Your task to perform on an android device: toggle sleep mode Image 0: 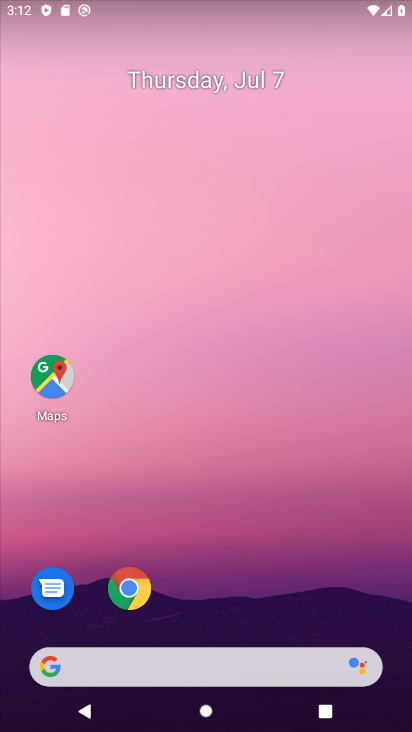
Step 0: drag from (260, 703) to (203, 124)
Your task to perform on an android device: toggle sleep mode Image 1: 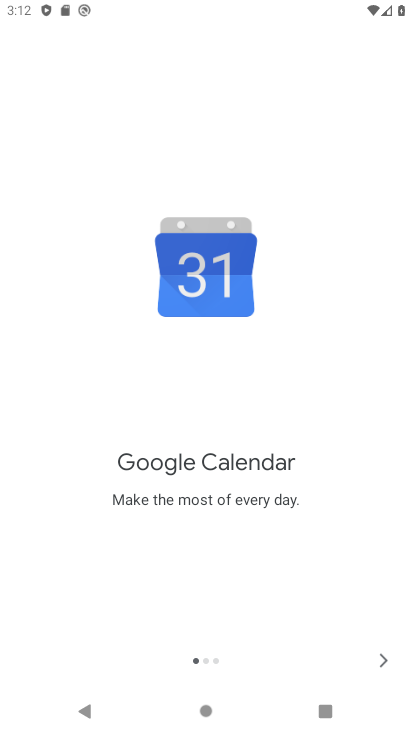
Step 1: press back button
Your task to perform on an android device: toggle sleep mode Image 2: 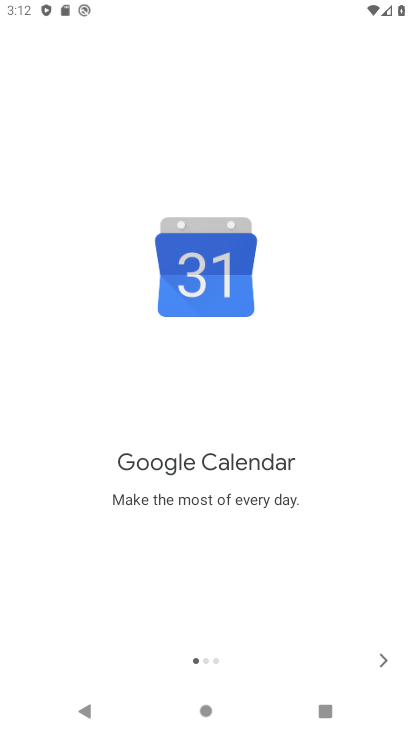
Step 2: press back button
Your task to perform on an android device: toggle sleep mode Image 3: 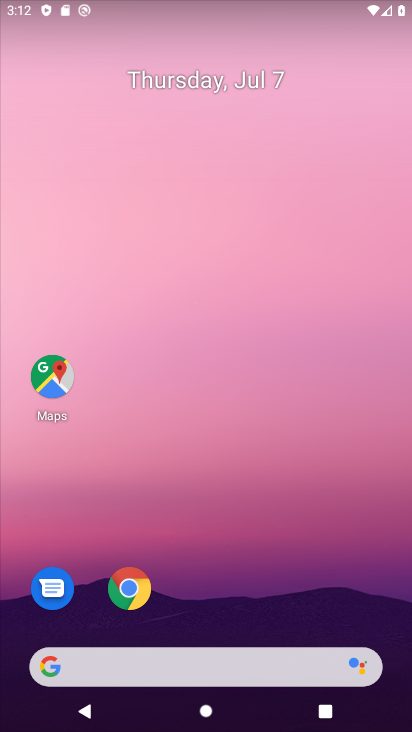
Step 3: drag from (269, 687) to (177, 16)
Your task to perform on an android device: toggle sleep mode Image 4: 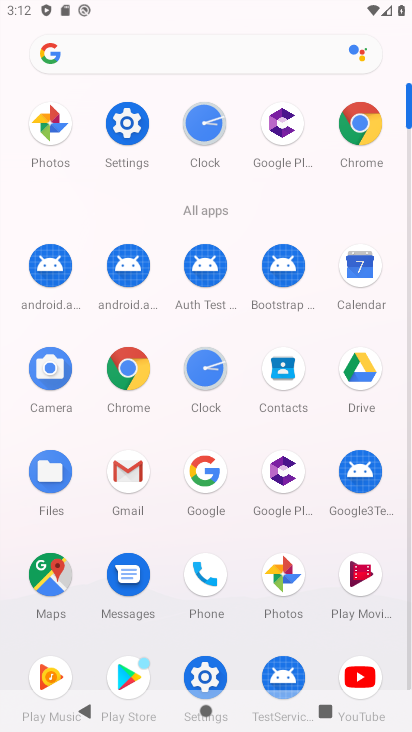
Step 4: click (122, 135)
Your task to perform on an android device: toggle sleep mode Image 5: 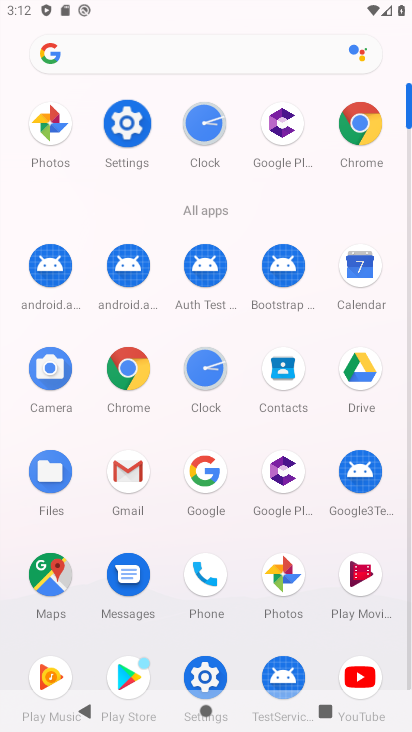
Step 5: click (124, 133)
Your task to perform on an android device: toggle sleep mode Image 6: 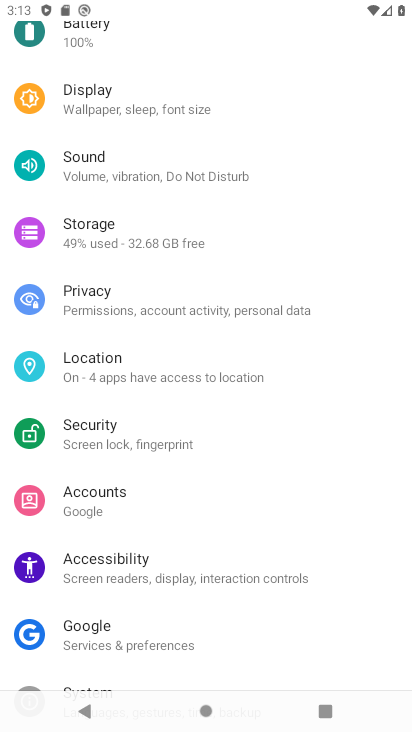
Step 6: click (128, 110)
Your task to perform on an android device: toggle sleep mode Image 7: 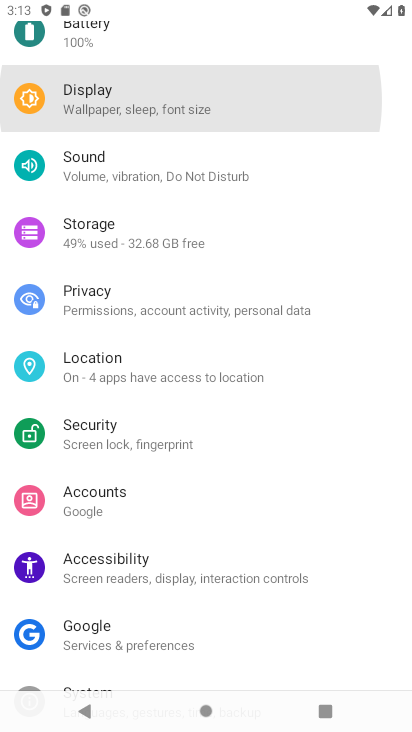
Step 7: click (129, 110)
Your task to perform on an android device: toggle sleep mode Image 8: 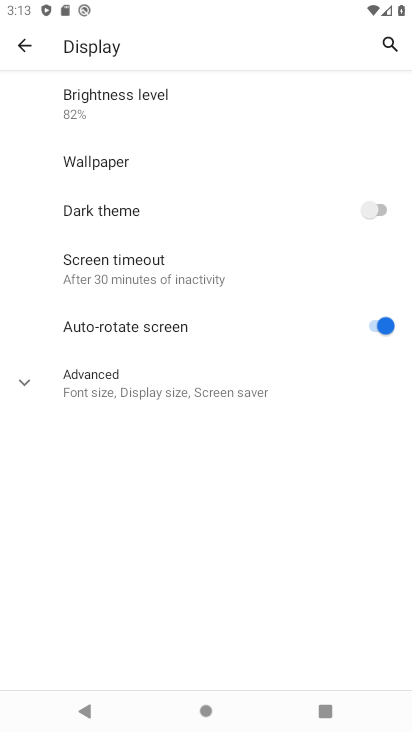
Step 8: click (126, 263)
Your task to perform on an android device: toggle sleep mode Image 9: 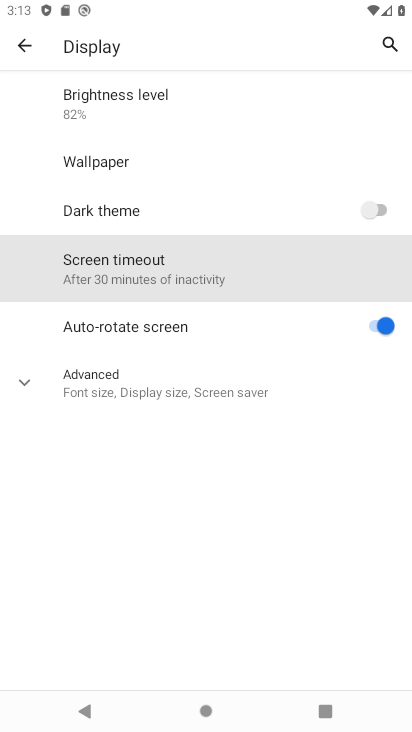
Step 9: click (126, 265)
Your task to perform on an android device: toggle sleep mode Image 10: 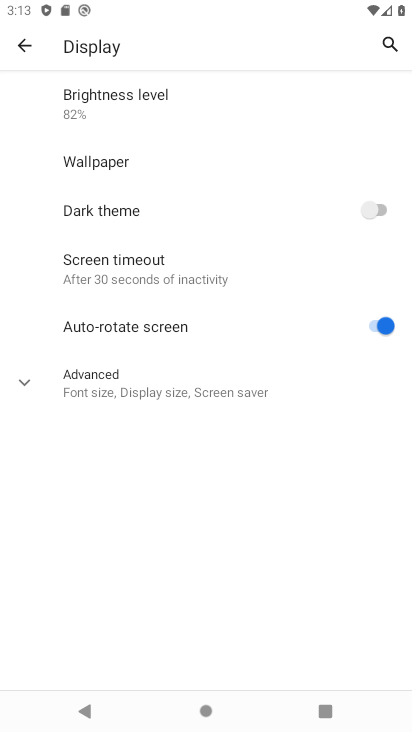
Step 10: click (121, 277)
Your task to perform on an android device: toggle sleep mode Image 11: 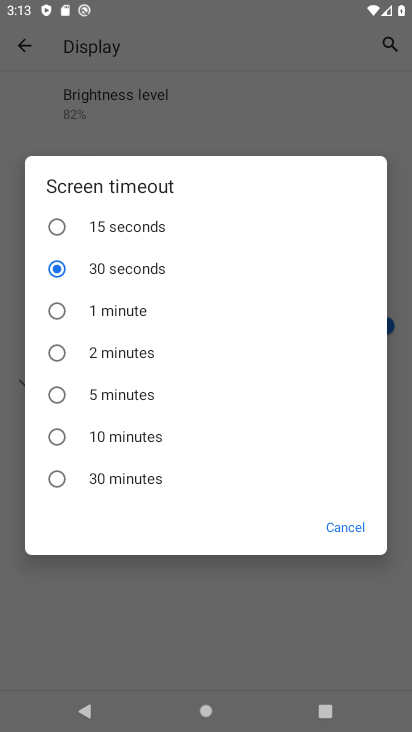
Step 11: click (58, 315)
Your task to perform on an android device: toggle sleep mode Image 12: 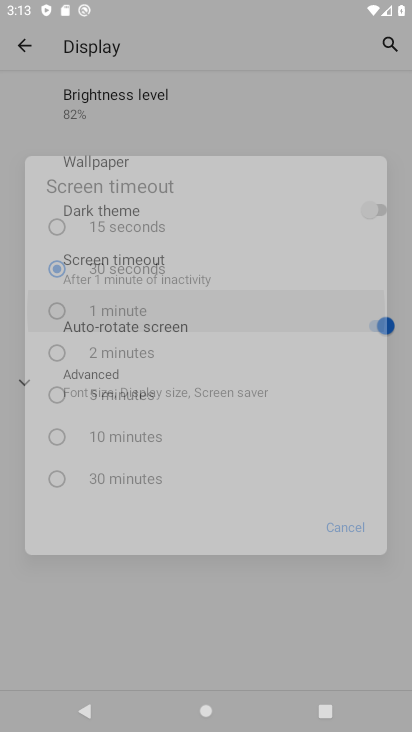
Step 12: click (59, 314)
Your task to perform on an android device: toggle sleep mode Image 13: 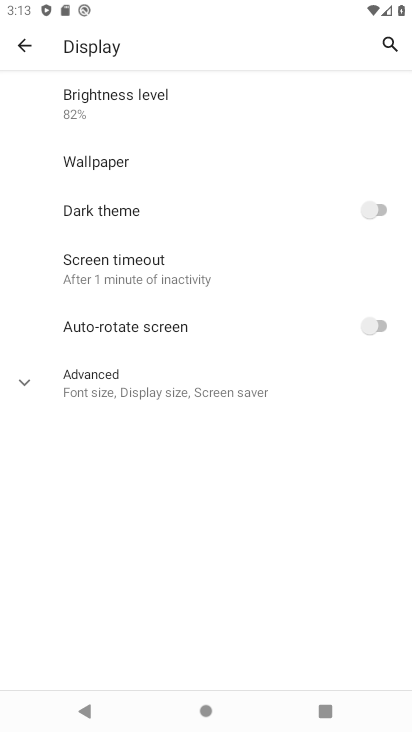
Step 13: task complete